Your task to perform on an android device: delete a single message in the gmail app Image 0: 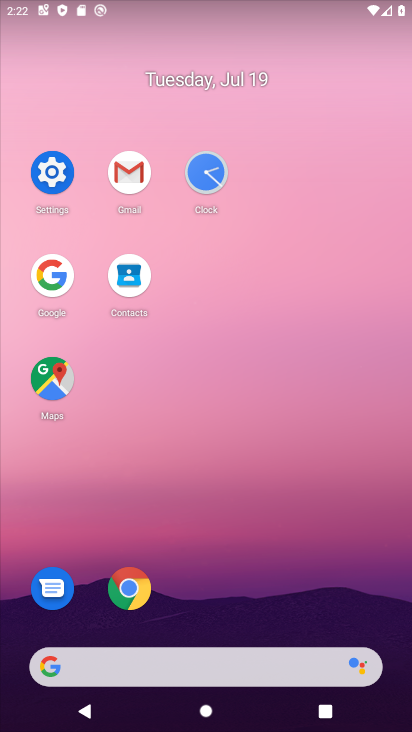
Step 0: click (134, 171)
Your task to perform on an android device: delete a single message in the gmail app Image 1: 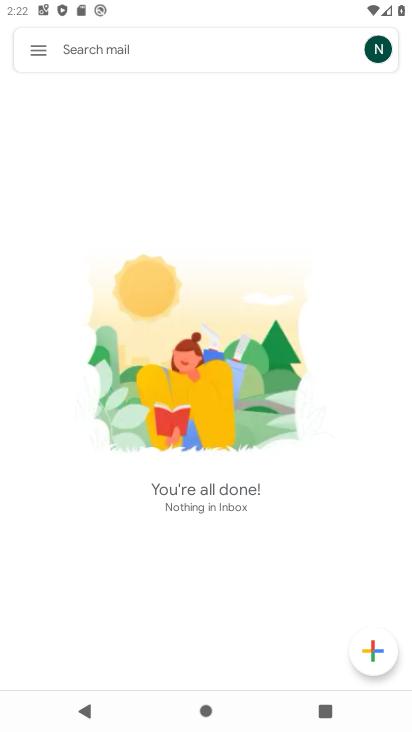
Step 1: click (46, 60)
Your task to perform on an android device: delete a single message in the gmail app Image 2: 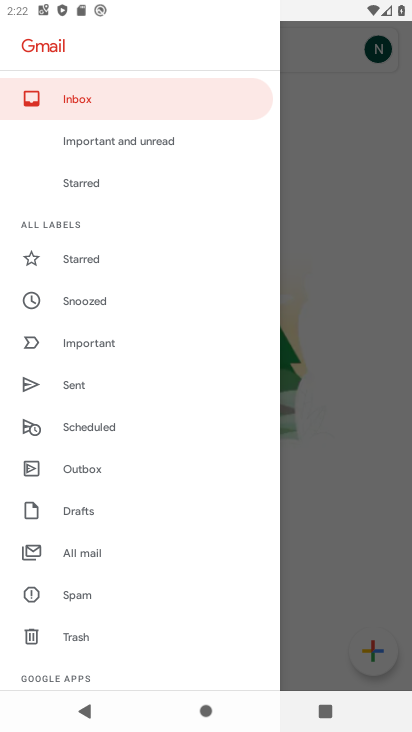
Step 2: click (131, 557)
Your task to perform on an android device: delete a single message in the gmail app Image 3: 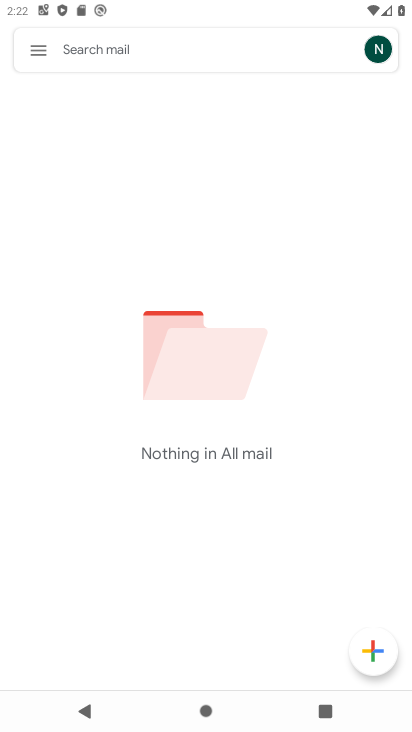
Step 3: task complete